Your task to perform on an android device: Open settings on Google Maps Image 0: 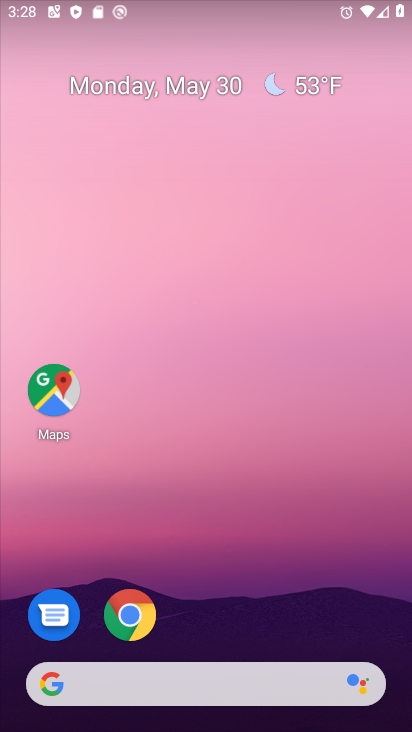
Step 0: click (43, 396)
Your task to perform on an android device: Open settings on Google Maps Image 1: 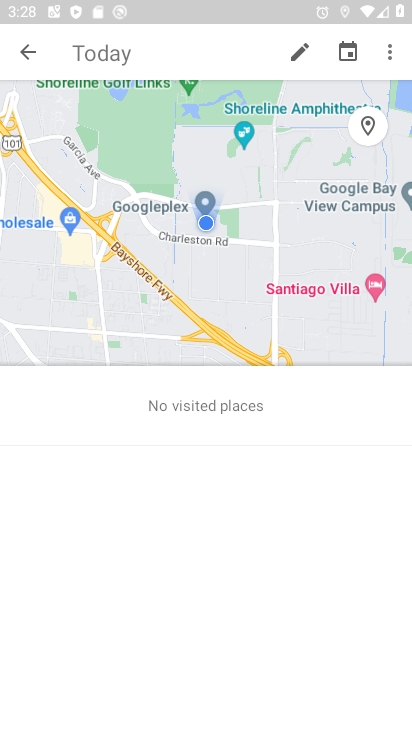
Step 1: click (36, 52)
Your task to perform on an android device: Open settings on Google Maps Image 2: 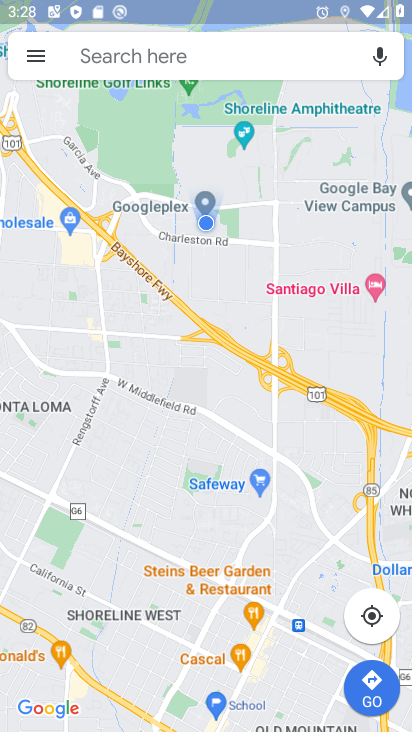
Step 2: click (36, 52)
Your task to perform on an android device: Open settings on Google Maps Image 3: 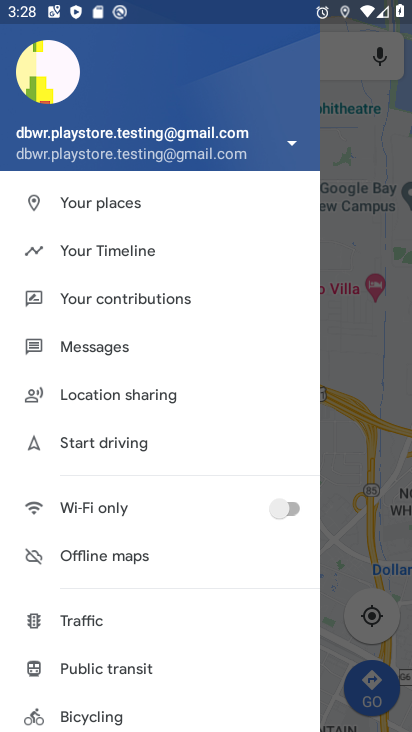
Step 3: drag from (135, 606) to (172, 233)
Your task to perform on an android device: Open settings on Google Maps Image 4: 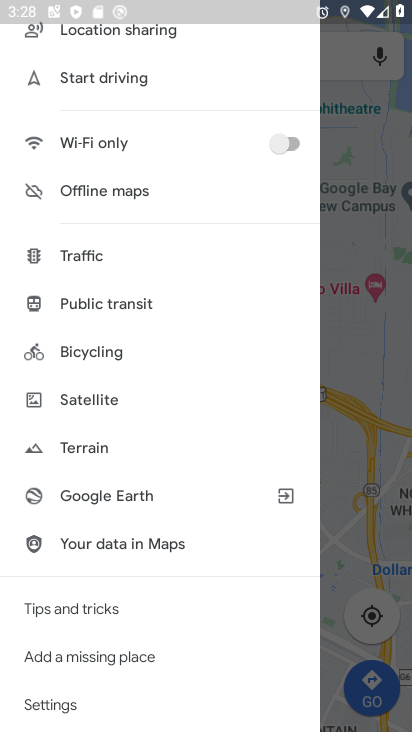
Step 4: click (87, 699)
Your task to perform on an android device: Open settings on Google Maps Image 5: 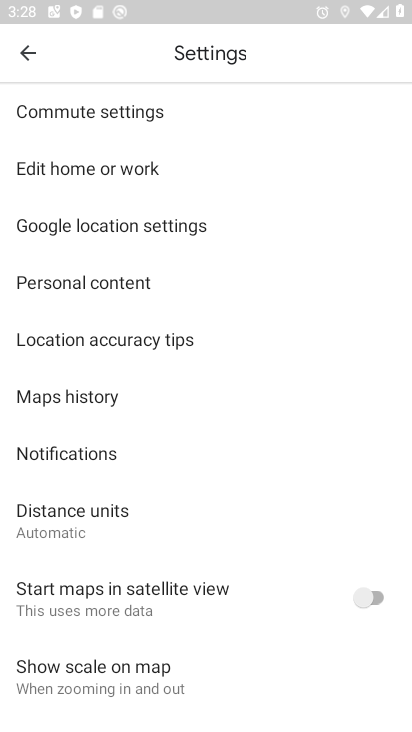
Step 5: task complete